Your task to perform on an android device: turn on airplane mode Image 0: 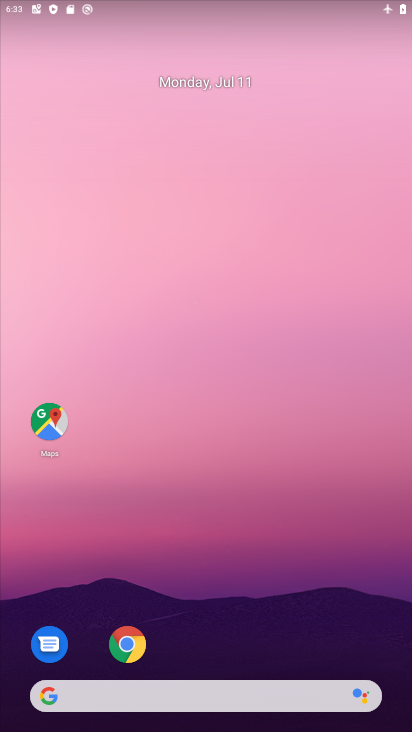
Step 0: drag from (292, 681) to (309, 0)
Your task to perform on an android device: turn on airplane mode Image 1: 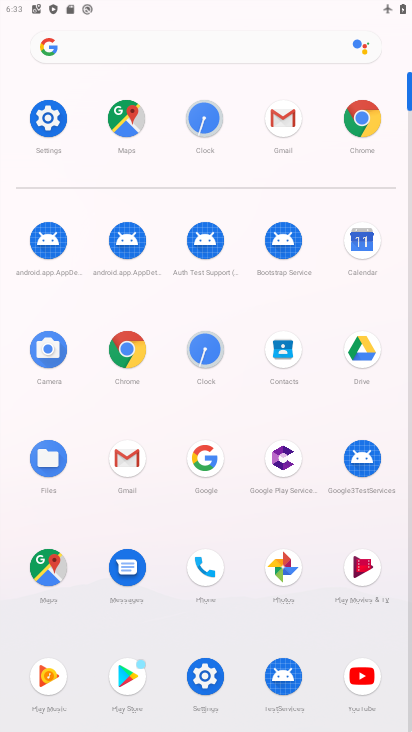
Step 1: click (58, 111)
Your task to perform on an android device: turn on airplane mode Image 2: 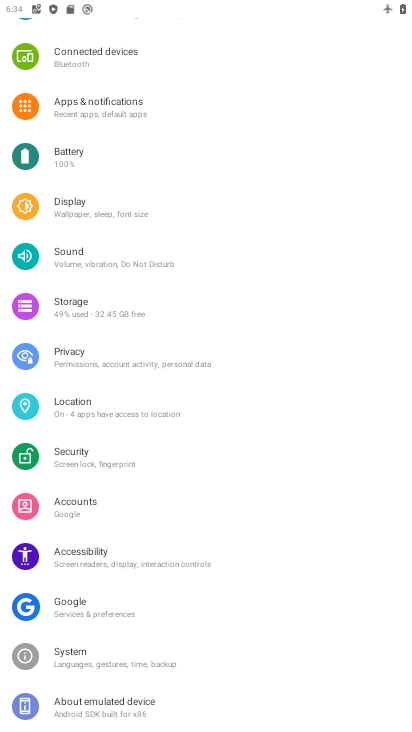
Step 2: task complete